Your task to perform on an android device: Toggle the flashlight Image 0: 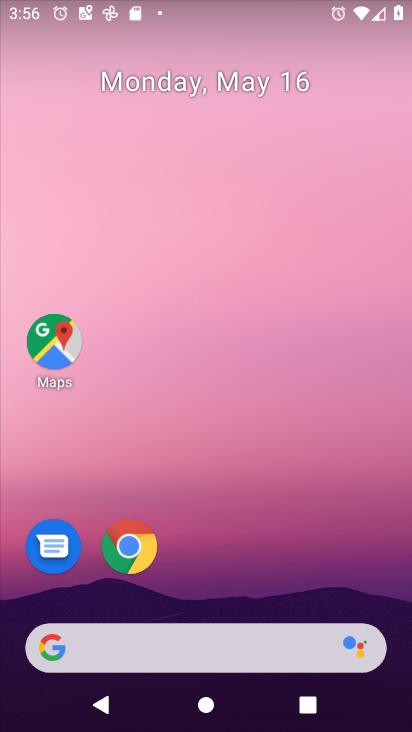
Step 0: drag from (260, 4) to (262, 349)
Your task to perform on an android device: Toggle the flashlight Image 1: 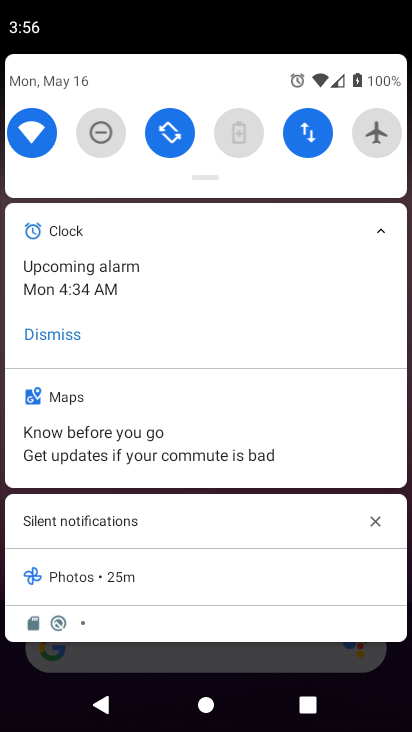
Step 1: drag from (271, 88) to (274, 421)
Your task to perform on an android device: Toggle the flashlight Image 2: 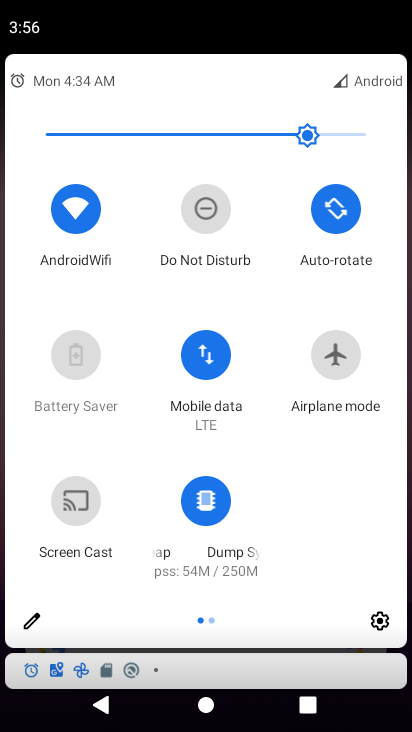
Step 2: click (31, 620)
Your task to perform on an android device: Toggle the flashlight Image 3: 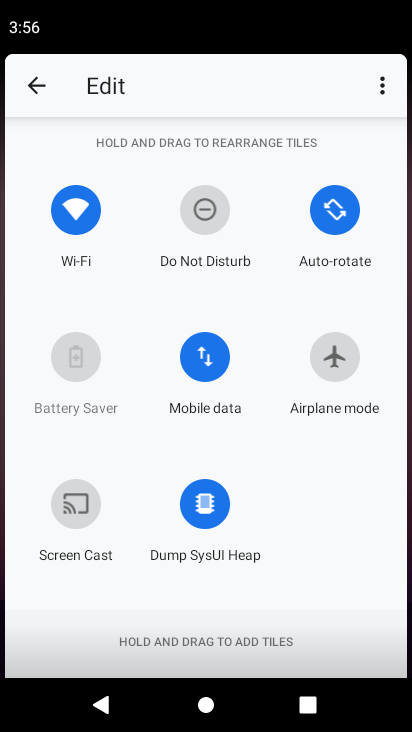
Step 3: task complete